Your task to perform on an android device: check data usage Image 0: 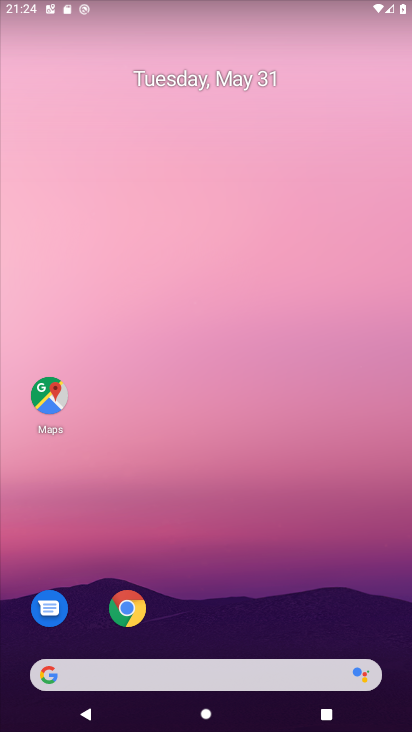
Step 0: drag from (198, 258) to (180, 35)
Your task to perform on an android device: check data usage Image 1: 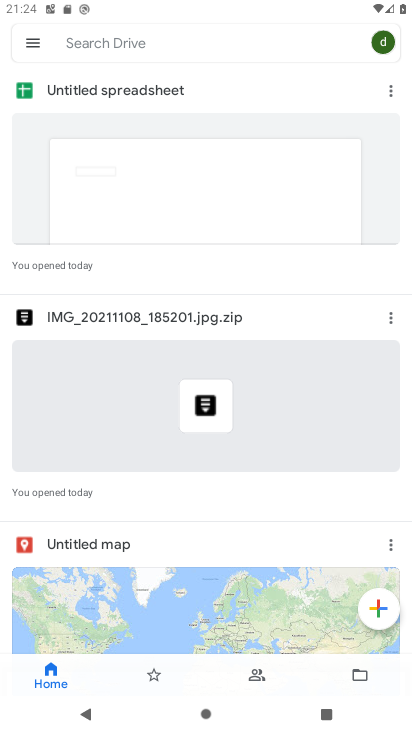
Step 1: press home button
Your task to perform on an android device: check data usage Image 2: 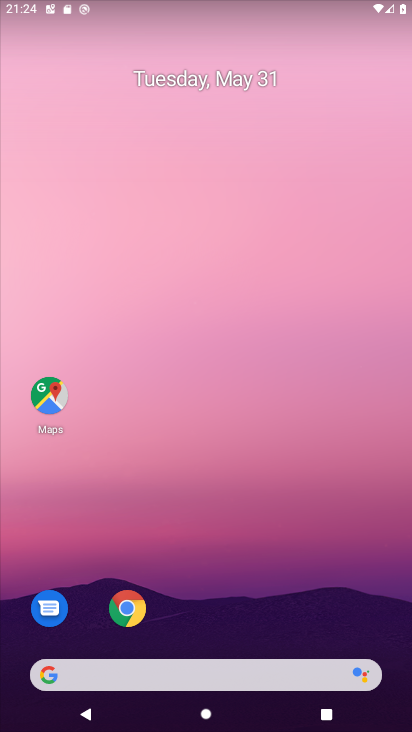
Step 2: drag from (229, 615) to (227, 135)
Your task to perform on an android device: check data usage Image 3: 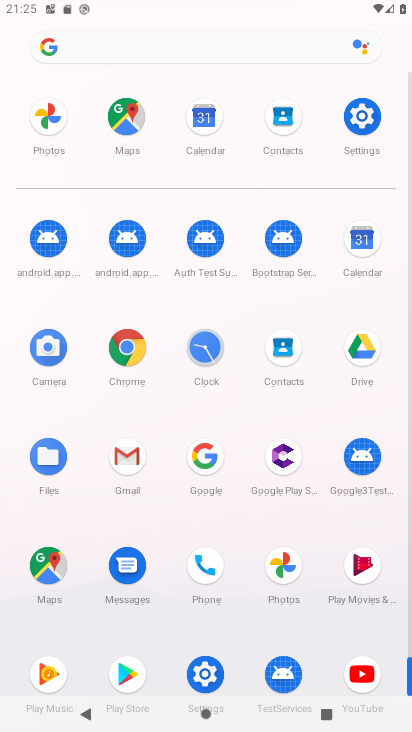
Step 3: click (364, 117)
Your task to perform on an android device: check data usage Image 4: 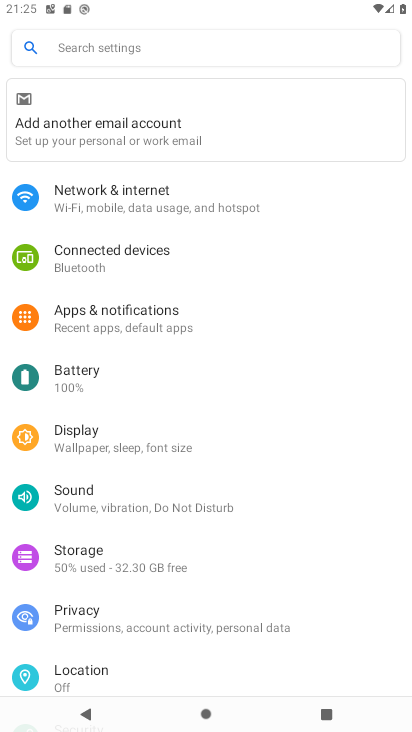
Step 4: click (155, 203)
Your task to perform on an android device: check data usage Image 5: 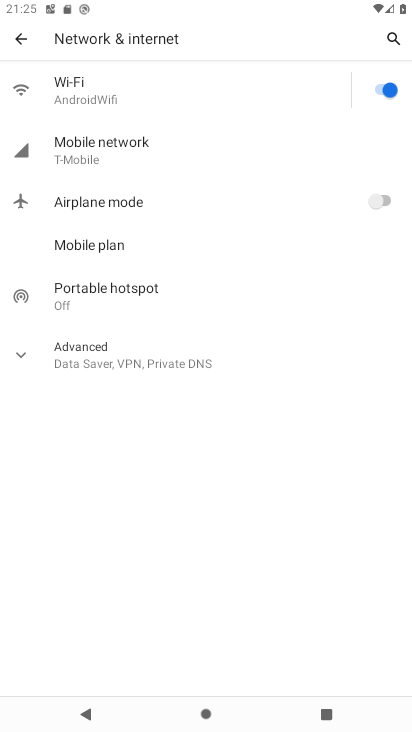
Step 5: click (108, 159)
Your task to perform on an android device: check data usage Image 6: 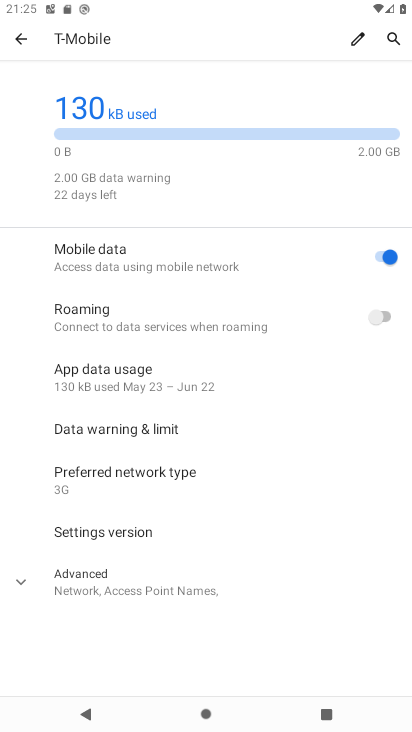
Step 6: task complete